Your task to perform on an android device: What's on my calendar tomorrow? Image 0: 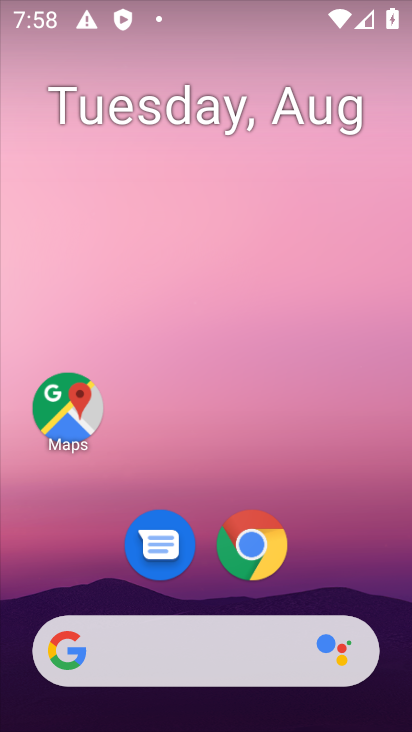
Step 0: drag from (39, 567) to (200, 191)
Your task to perform on an android device: What's on my calendar tomorrow? Image 1: 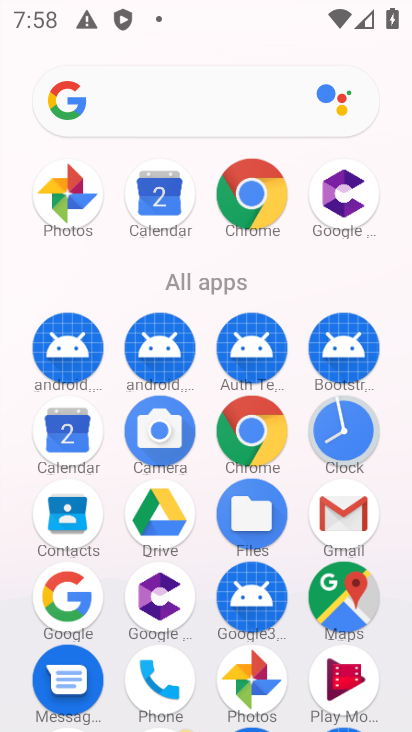
Step 1: click (148, 187)
Your task to perform on an android device: What's on my calendar tomorrow? Image 2: 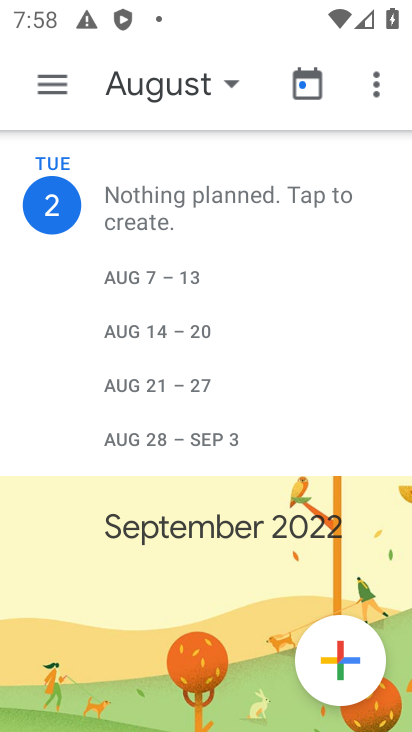
Step 2: click (174, 90)
Your task to perform on an android device: What's on my calendar tomorrow? Image 3: 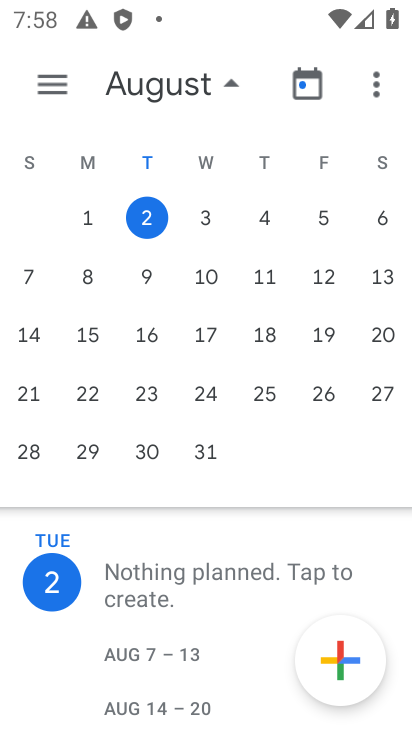
Step 3: click (202, 221)
Your task to perform on an android device: What's on my calendar tomorrow? Image 4: 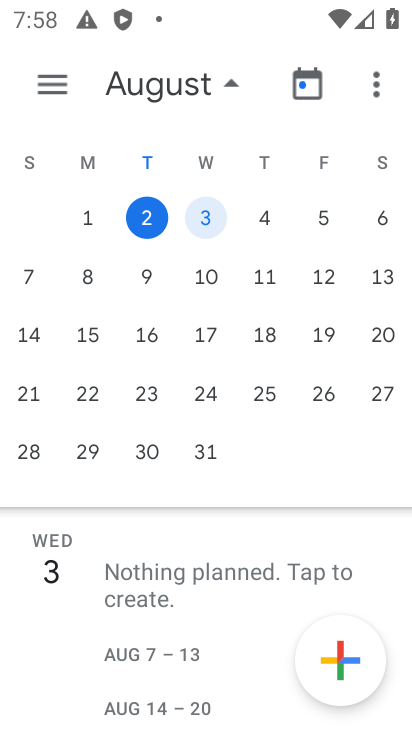
Step 4: task complete